Your task to perform on an android device: turn off improve location accuracy Image 0: 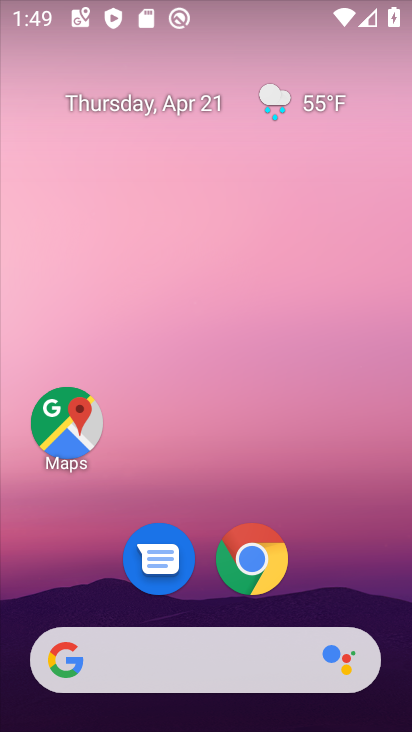
Step 0: drag from (219, 684) to (322, 122)
Your task to perform on an android device: turn off improve location accuracy Image 1: 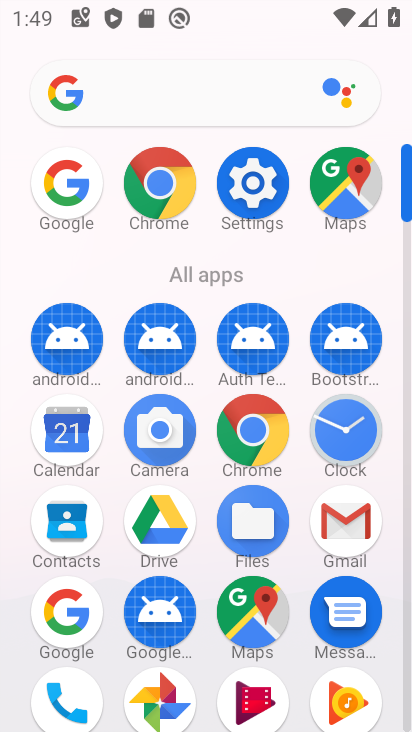
Step 1: click (340, 197)
Your task to perform on an android device: turn off improve location accuracy Image 2: 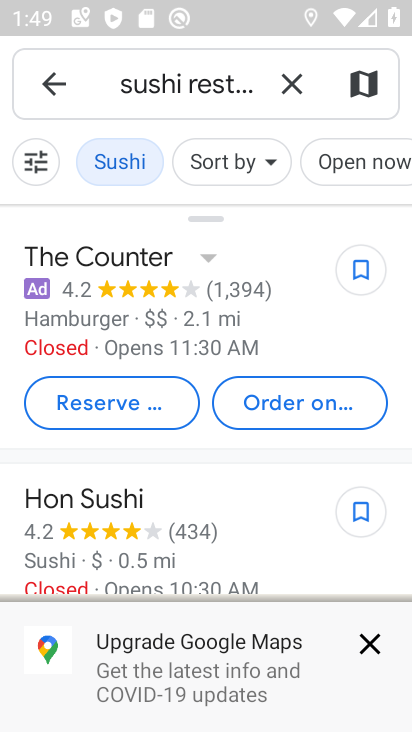
Step 2: click (286, 88)
Your task to perform on an android device: turn off improve location accuracy Image 3: 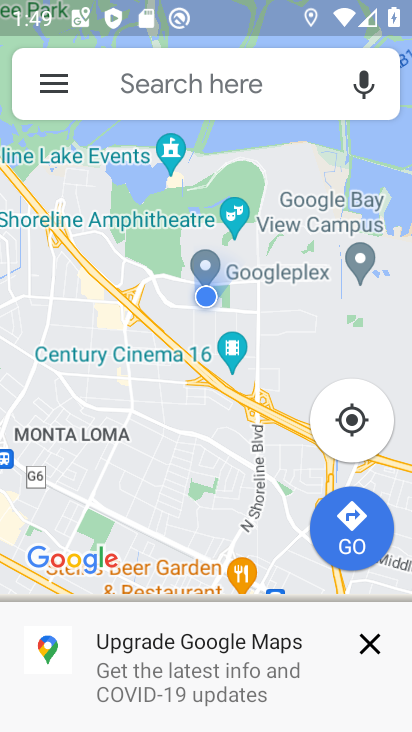
Step 3: click (62, 73)
Your task to perform on an android device: turn off improve location accuracy Image 4: 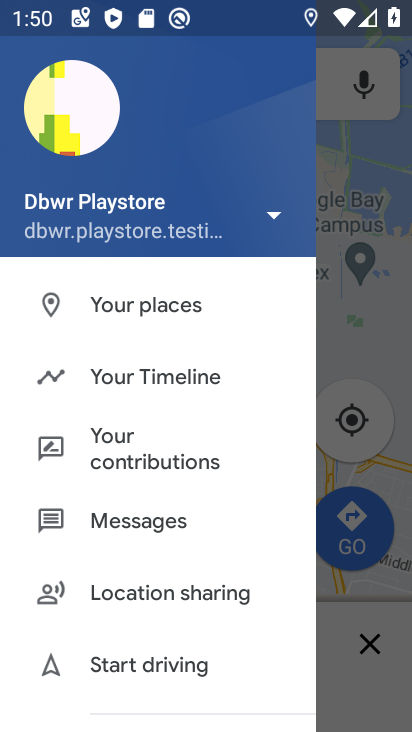
Step 4: drag from (143, 635) to (260, 330)
Your task to perform on an android device: turn off improve location accuracy Image 5: 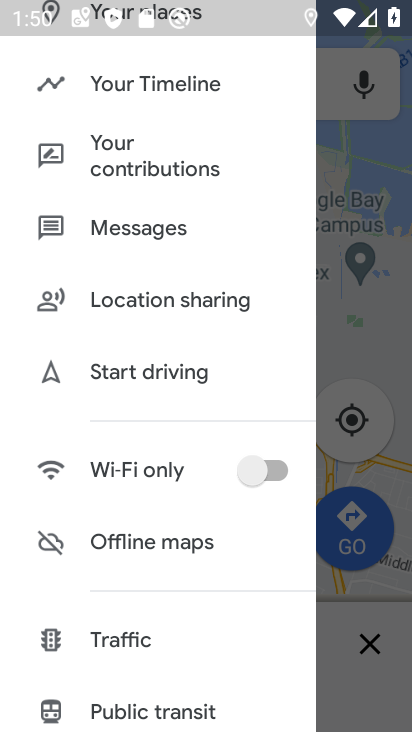
Step 5: drag from (75, 643) to (160, 241)
Your task to perform on an android device: turn off improve location accuracy Image 6: 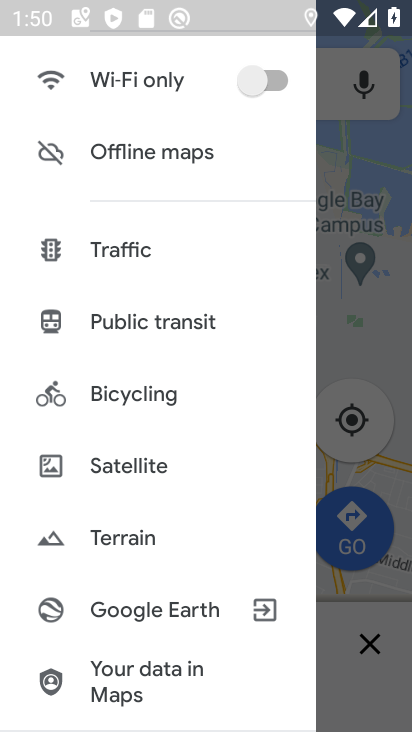
Step 6: drag from (83, 598) to (218, 184)
Your task to perform on an android device: turn off improve location accuracy Image 7: 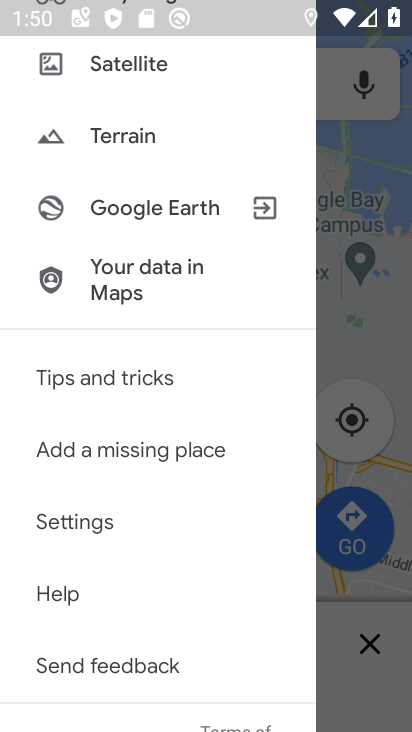
Step 7: click (97, 514)
Your task to perform on an android device: turn off improve location accuracy Image 8: 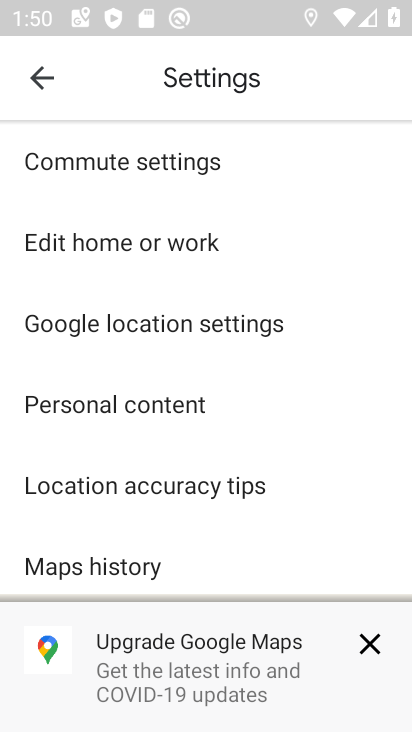
Step 8: drag from (141, 561) to (152, 175)
Your task to perform on an android device: turn off improve location accuracy Image 9: 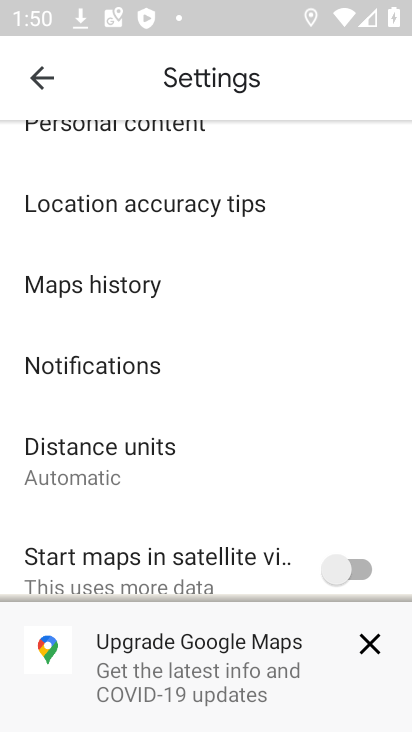
Step 9: click (147, 205)
Your task to perform on an android device: turn off improve location accuracy Image 10: 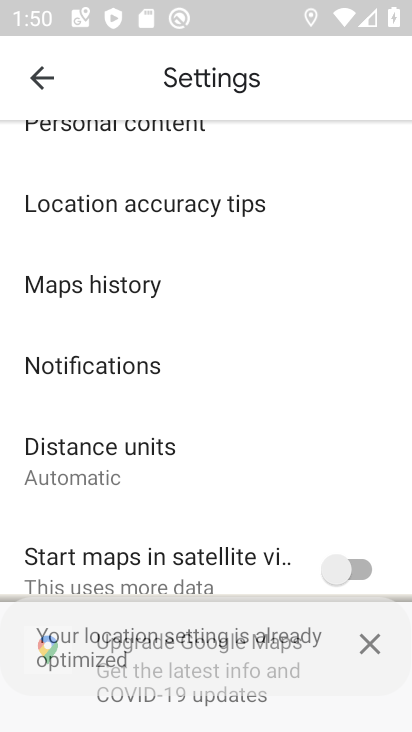
Step 10: click (147, 205)
Your task to perform on an android device: turn off improve location accuracy Image 11: 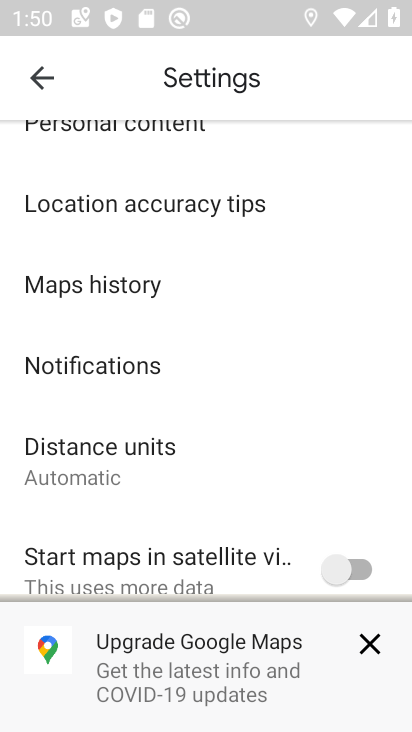
Step 11: click (147, 205)
Your task to perform on an android device: turn off improve location accuracy Image 12: 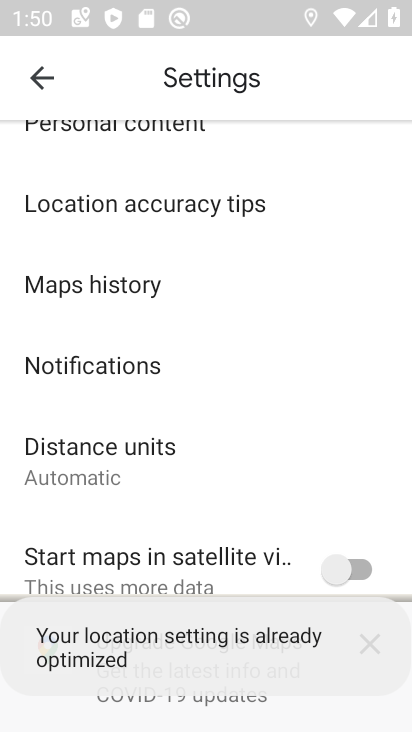
Step 12: click (147, 205)
Your task to perform on an android device: turn off improve location accuracy Image 13: 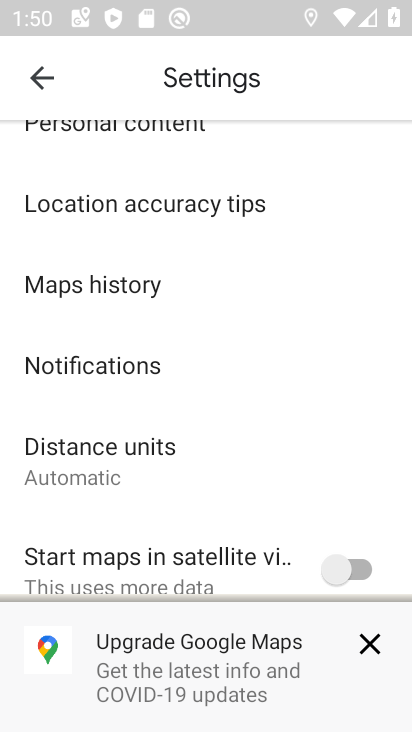
Step 13: task complete